Your task to perform on an android device: Clear the shopping cart on walmart.com. Add acer nitro to the cart on walmart.com Image 0: 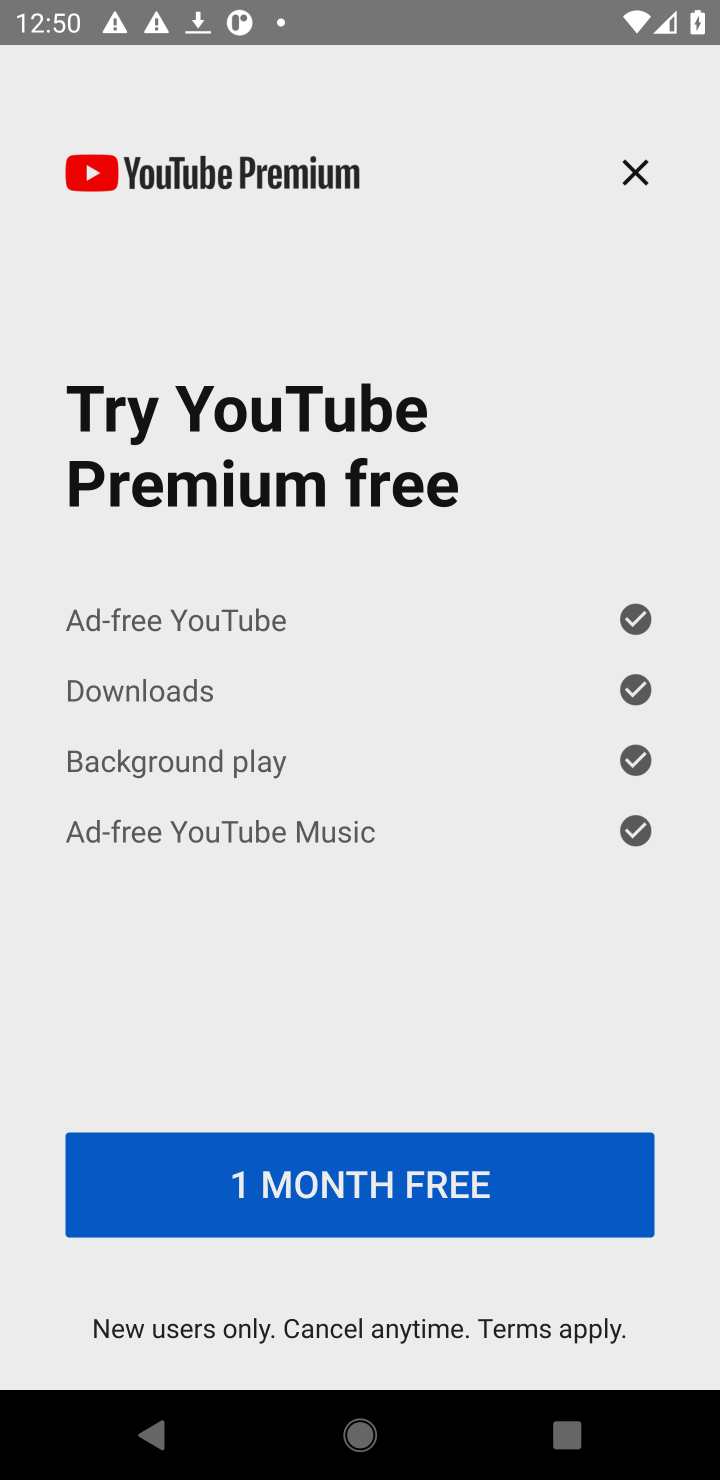
Step 0: press home button
Your task to perform on an android device: Clear the shopping cart on walmart.com. Add acer nitro to the cart on walmart.com Image 1: 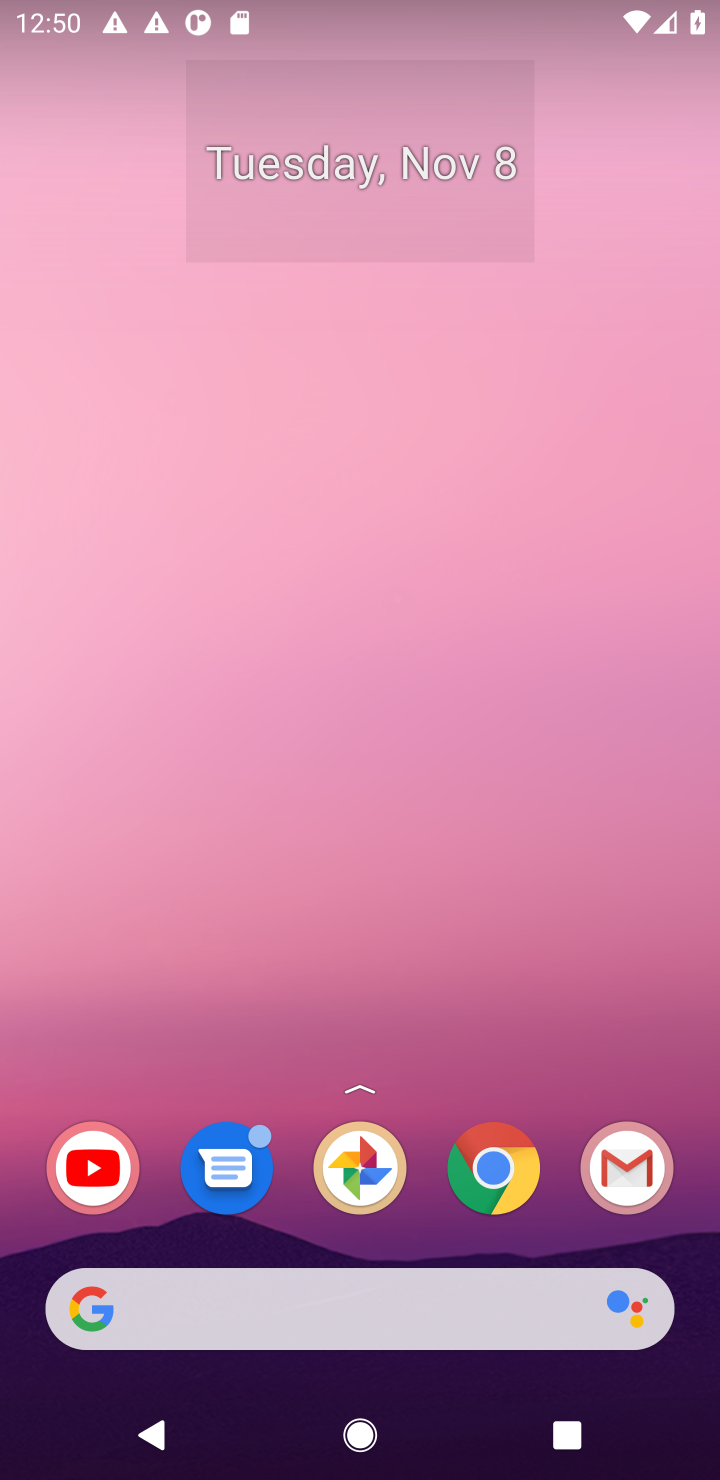
Step 1: click (384, 930)
Your task to perform on an android device: Clear the shopping cart on walmart.com. Add acer nitro to the cart on walmart.com Image 2: 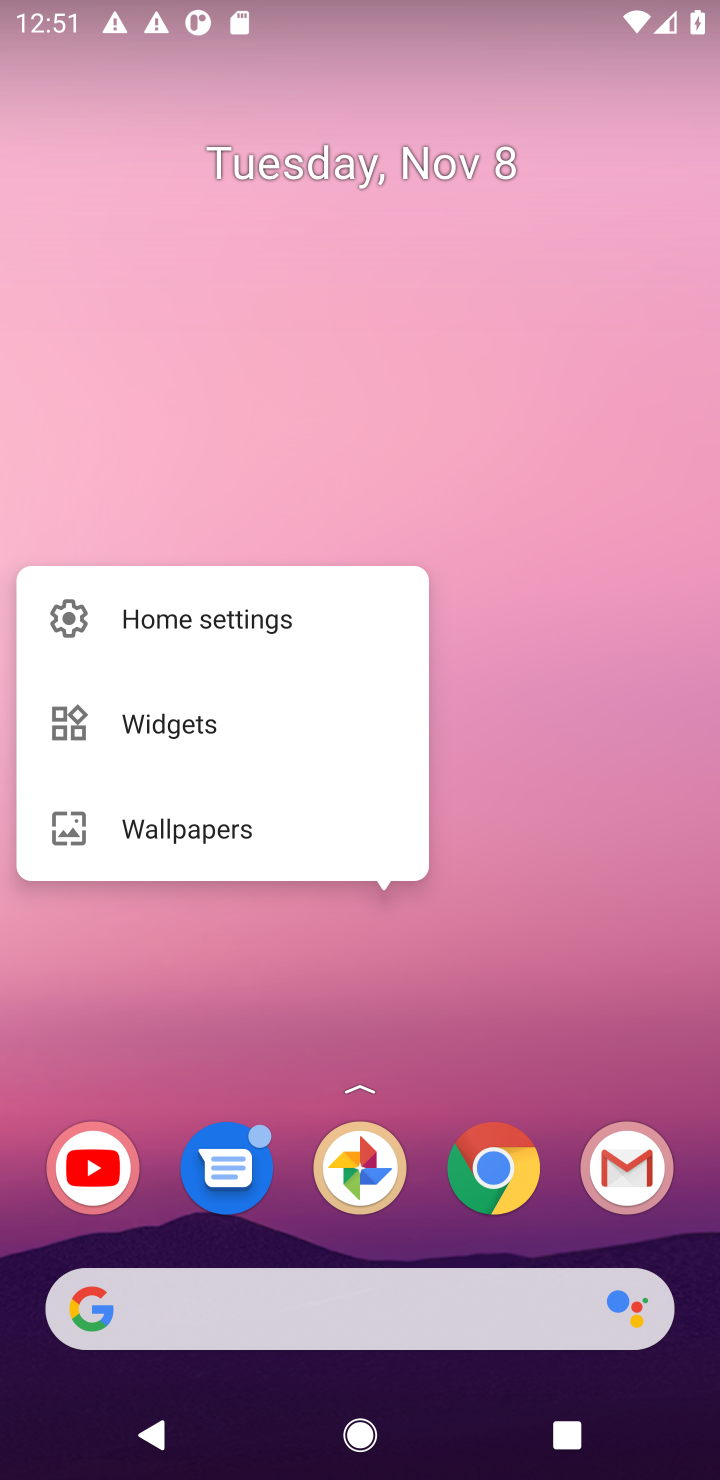
Step 2: click (524, 1019)
Your task to perform on an android device: Clear the shopping cart on walmart.com. Add acer nitro to the cart on walmart.com Image 3: 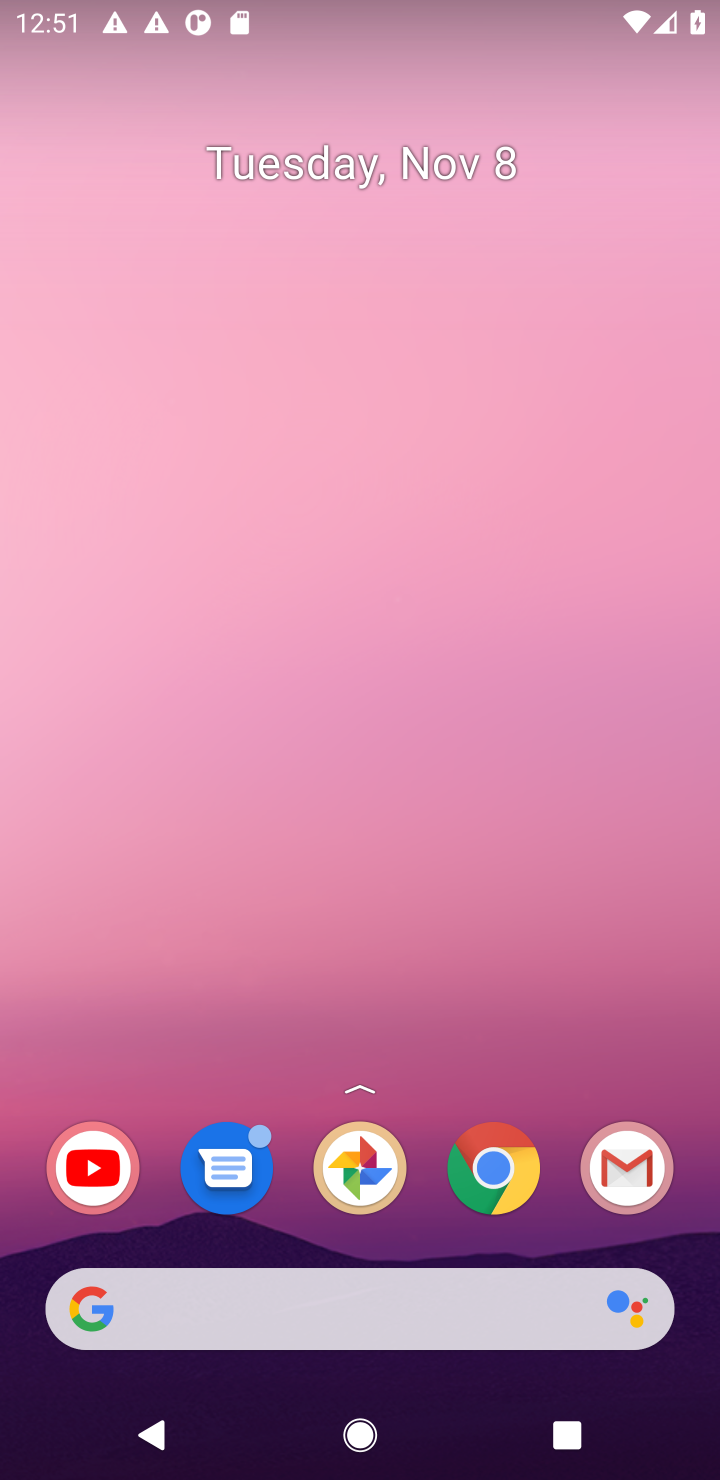
Step 3: click (503, 1182)
Your task to perform on an android device: Clear the shopping cart on walmart.com. Add acer nitro to the cart on walmart.com Image 4: 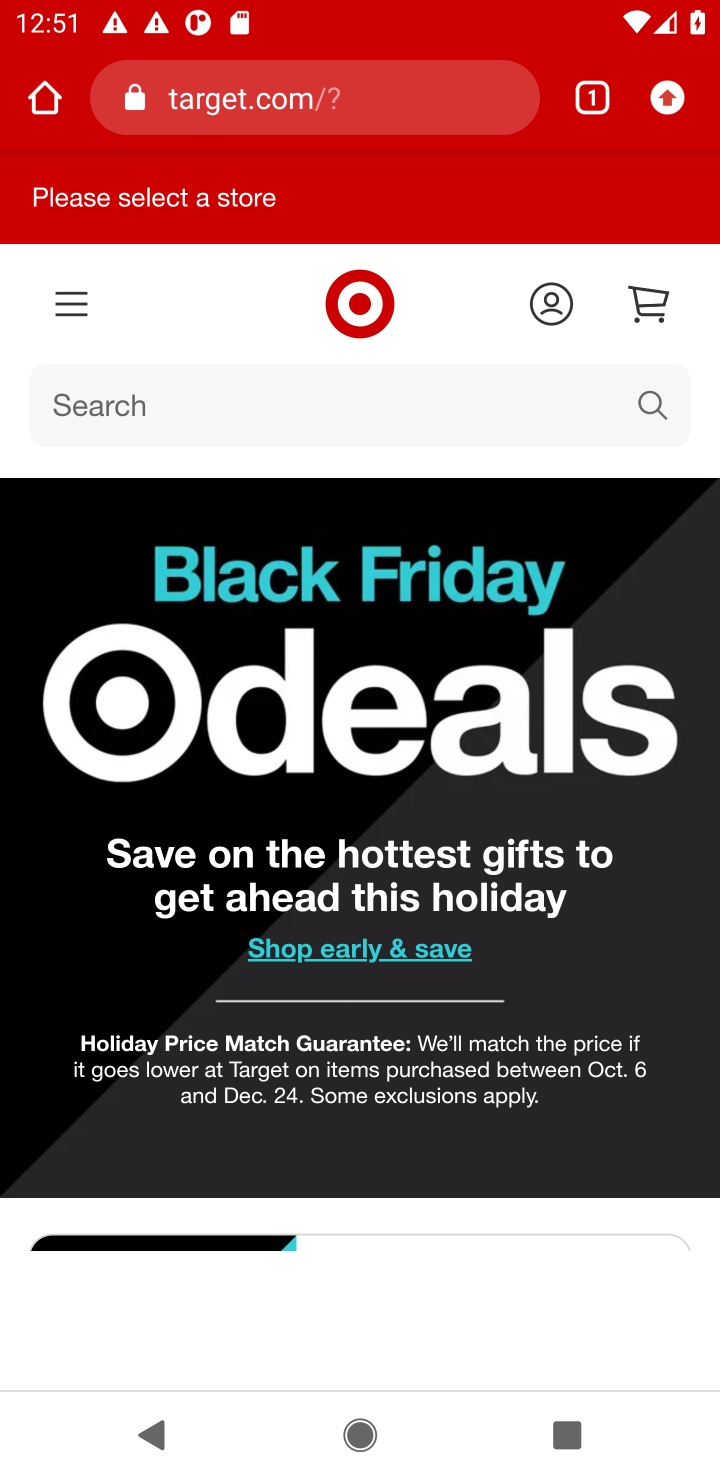
Step 4: click (347, 96)
Your task to perform on an android device: Clear the shopping cart on walmart.com. Add acer nitro to the cart on walmart.com Image 5: 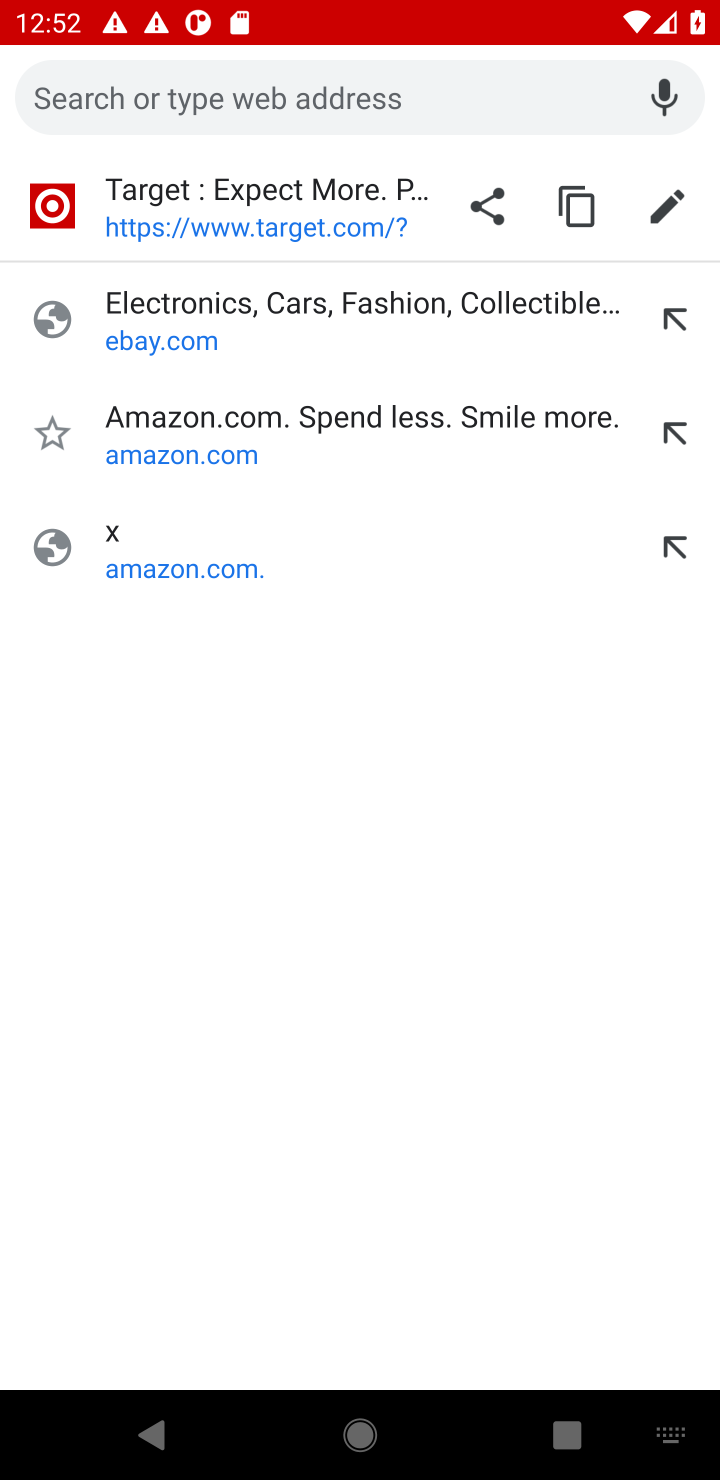
Step 5: press enter
Your task to perform on an android device: Clear the shopping cart on walmart.com. Add acer nitro to the cart on walmart.com Image 6: 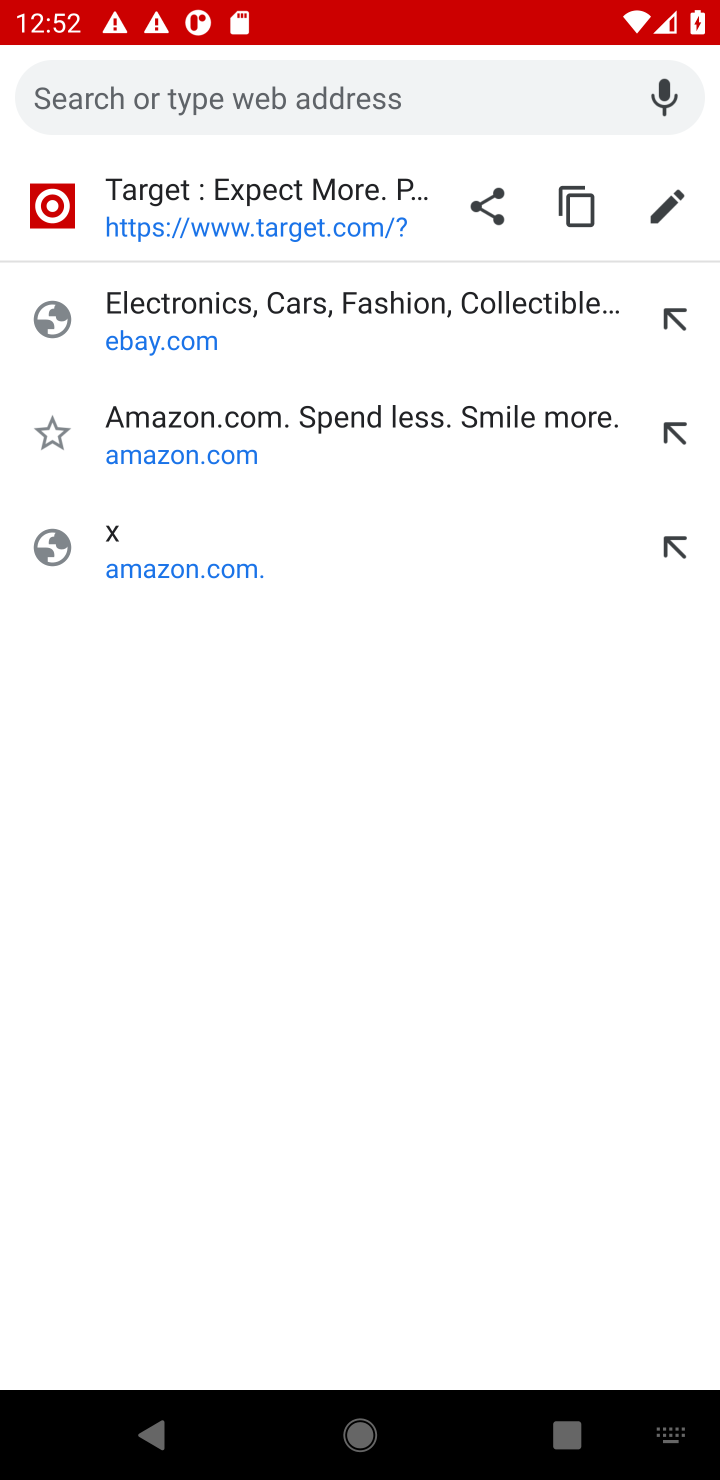
Step 6: type "walmart.com."
Your task to perform on an android device: Clear the shopping cart on walmart.com. Add acer nitro to the cart on walmart.com Image 7: 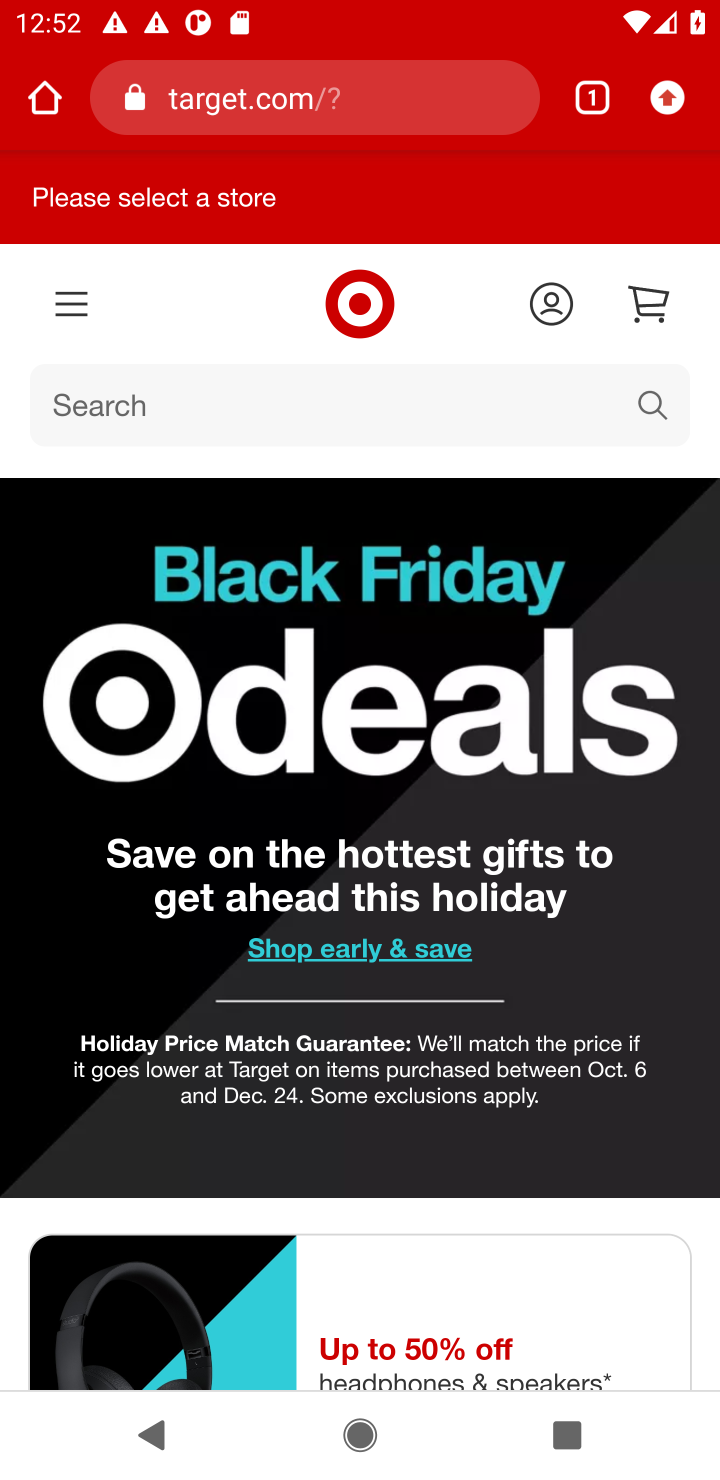
Step 7: click (317, 108)
Your task to perform on an android device: Clear the shopping cart on walmart.com. Add acer nitro to the cart on walmart.com Image 8: 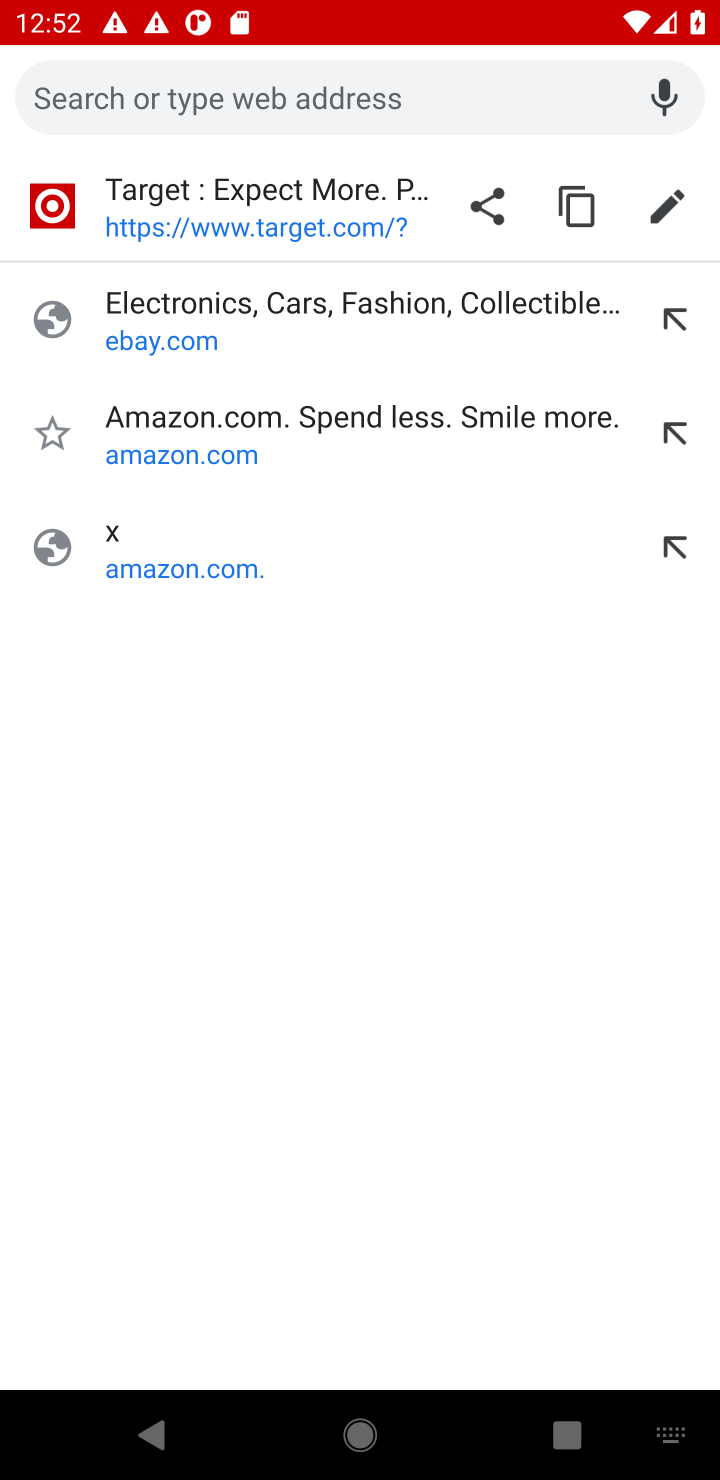
Step 8: type "walmart.com"
Your task to perform on an android device: Clear the shopping cart on walmart.com. Add acer nitro to the cart on walmart.com Image 9: 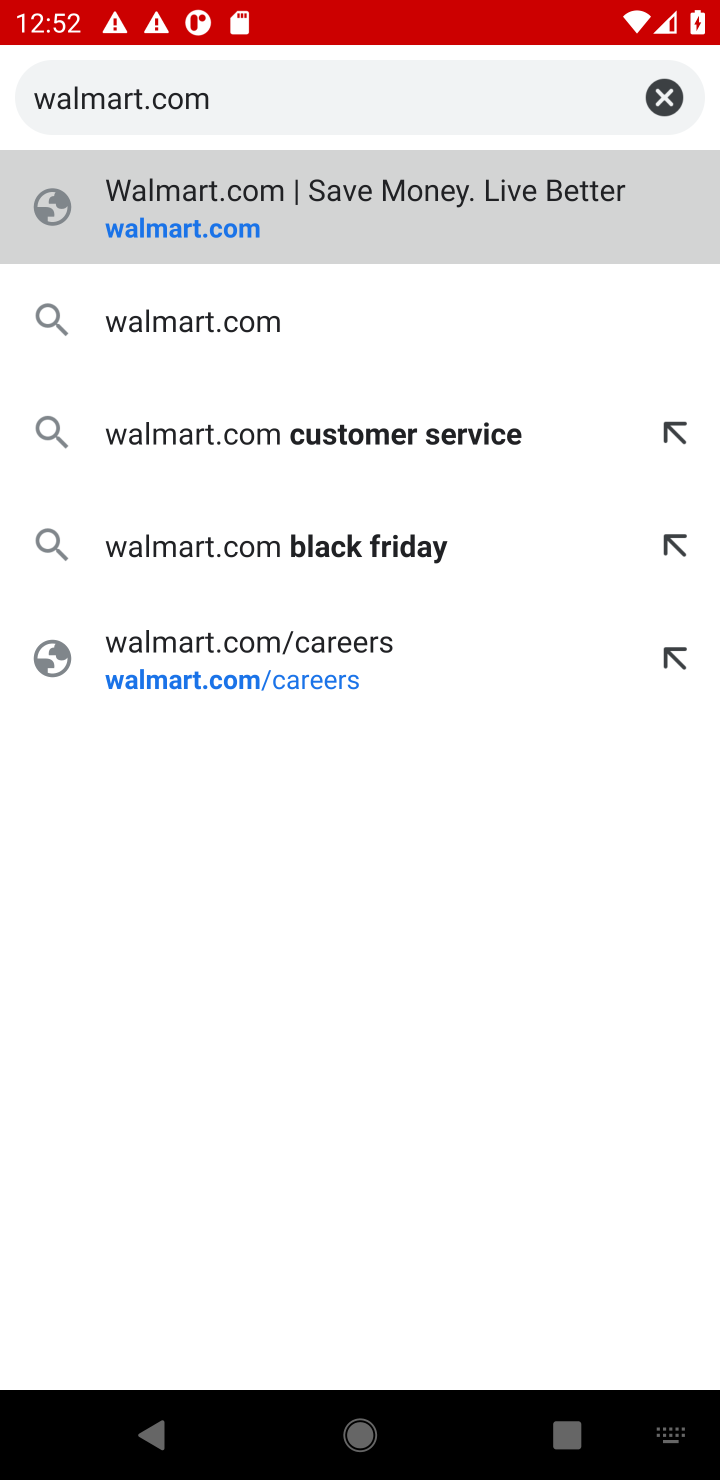
Step 9: press enter
Your task to perform on an android device: Clear the shopping cart on walmart.com. Add acer nitro to the cart on walmart.com Image 10: 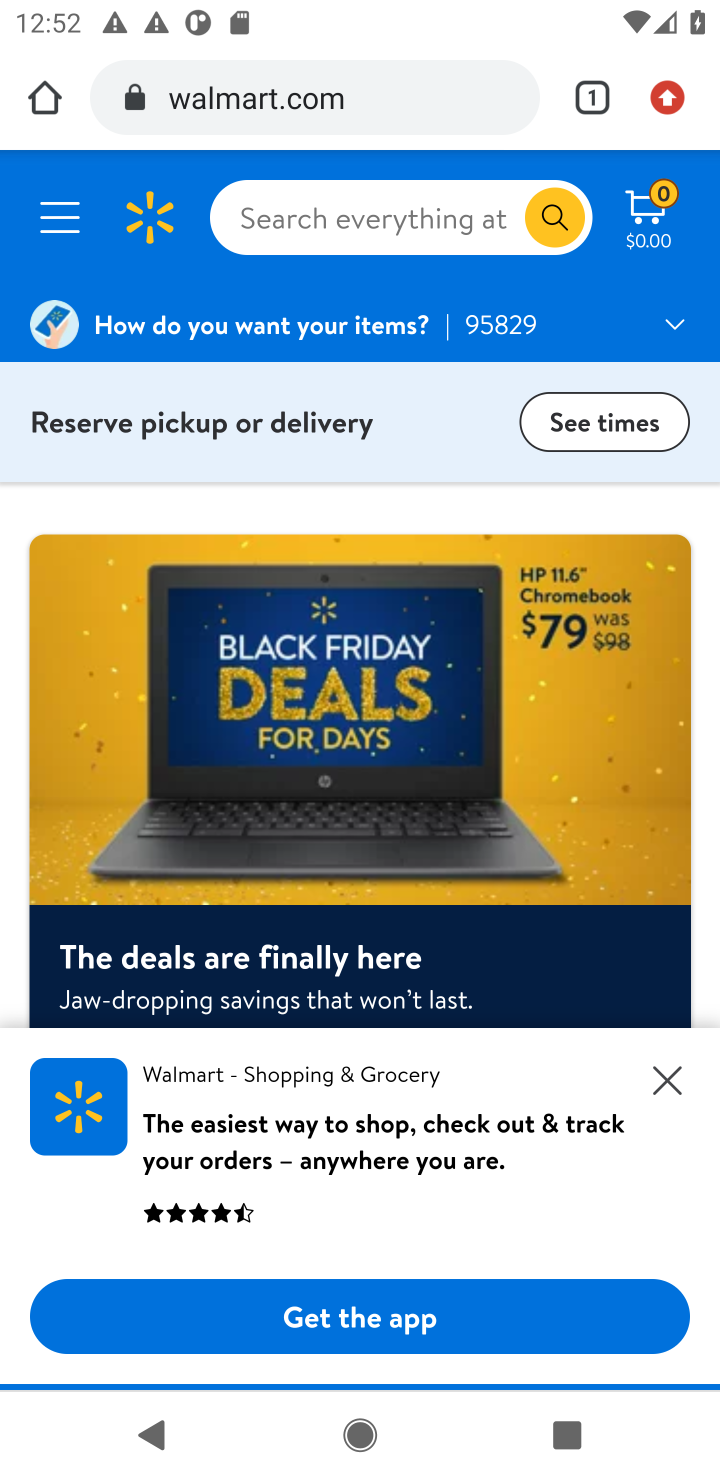
Step 10: click (357, 224)
Your task to perform on an android device: Clear the shopping cart on walmart.com. Add acer nitro to the cart on walmart.com Image 11: 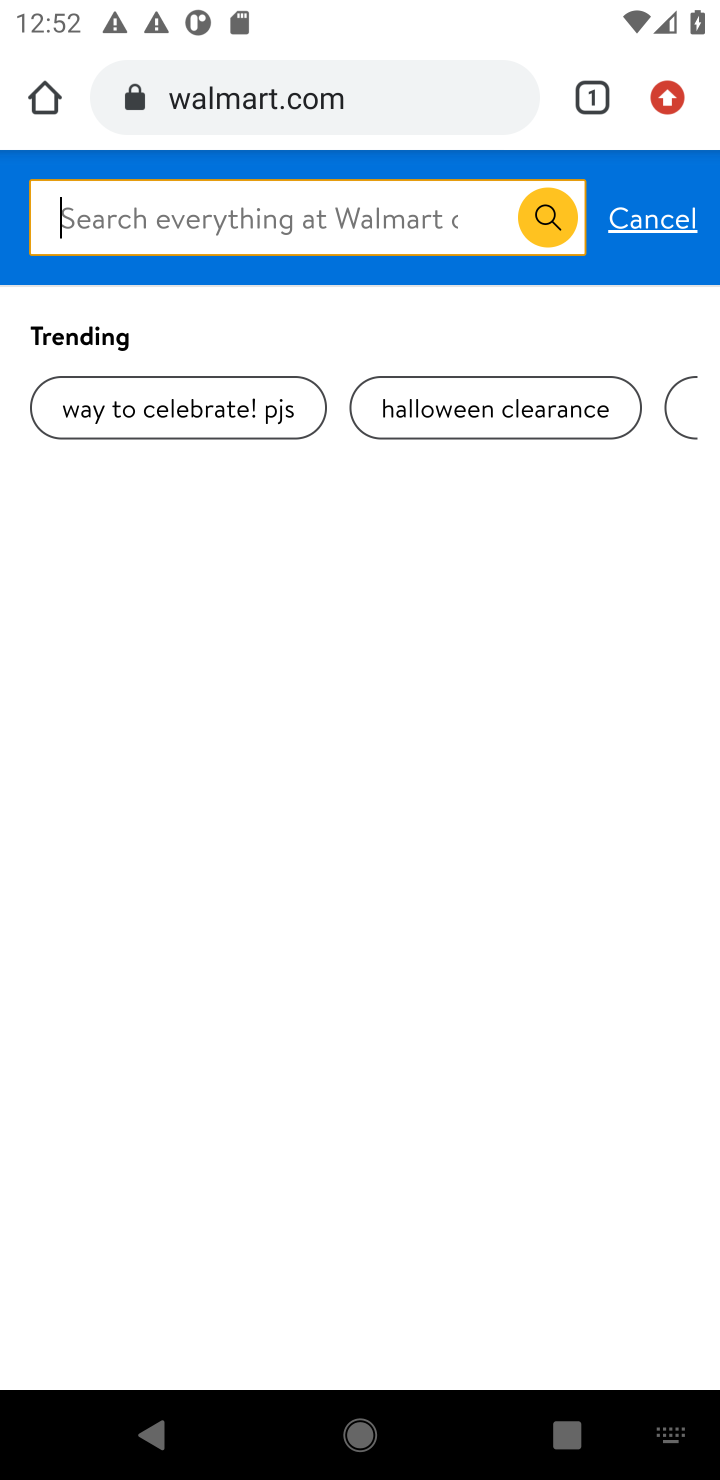
Step 11: type "acer nitro"
Your task to perform on an android device: Clear the shopping cart on walmart.com. Add acer nitro to the cart on walmart.com Image 12: 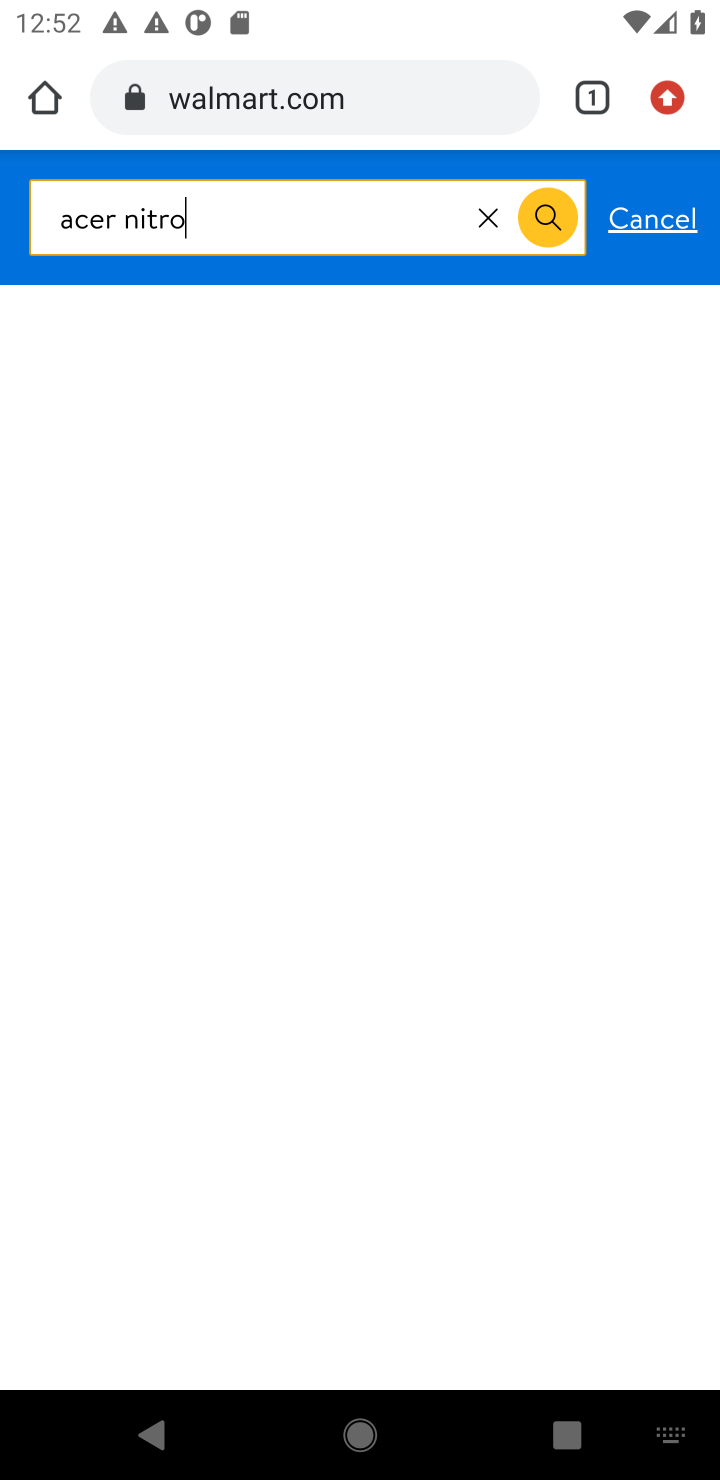
Step 12: press enter
Your task to perform on an android device: Clear the shopping cart on walmart.com. Add acer nitro to the cart on walmart.com Image 13: 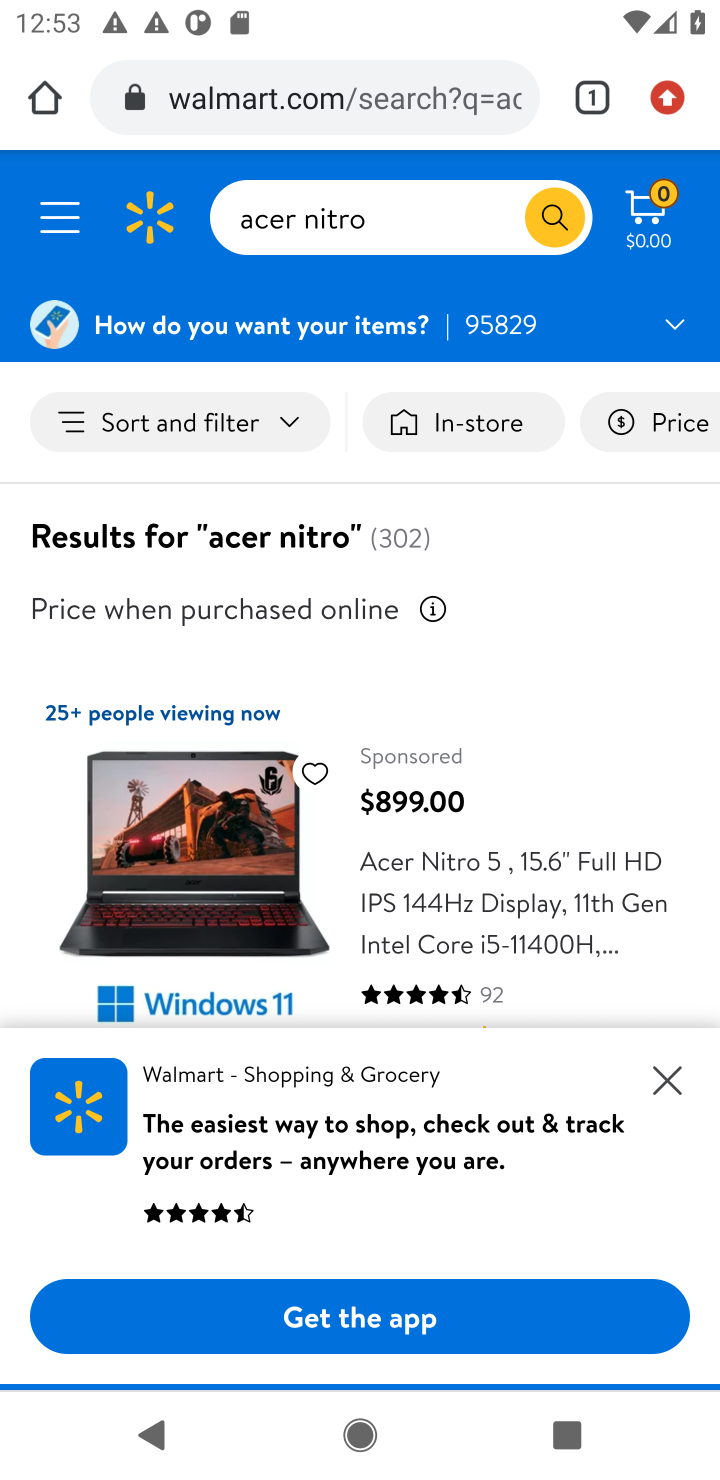
Step 13: click (666, 1068)
Your task to perform on an android device: Clear the shopping cart on walmart.com. Add acer nitro to the cart on walmart.com Image 14: 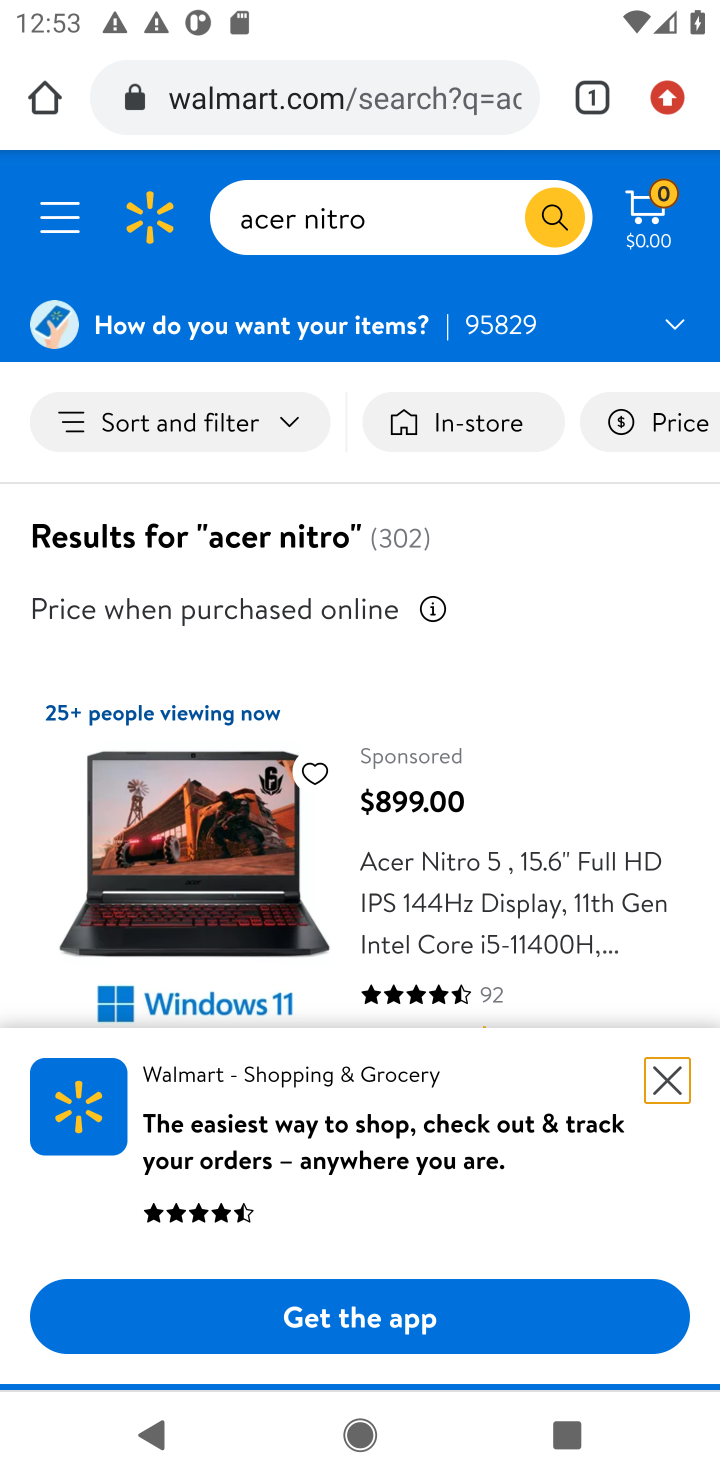
Step 14: click (675, 1084)
Your task to perform on an android device: Clear the shopping cart on walmart.com. Add acer nitro to the cart on walmart.com Image 15: 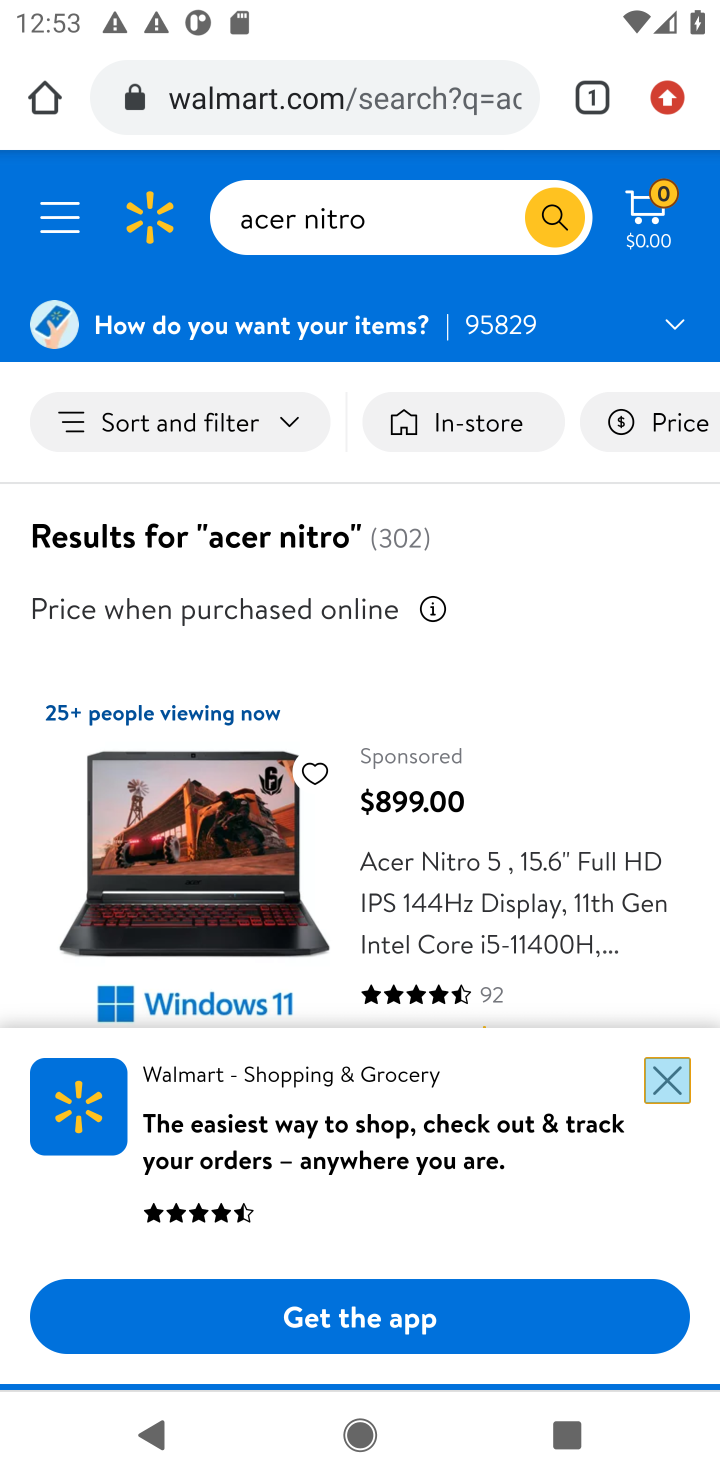
Step 15: click (675, 1083)
Your task to perform on an android device: Clear the shopping cart on walmart.com. Add acer nitro to the cart on walmart.com Image 16: 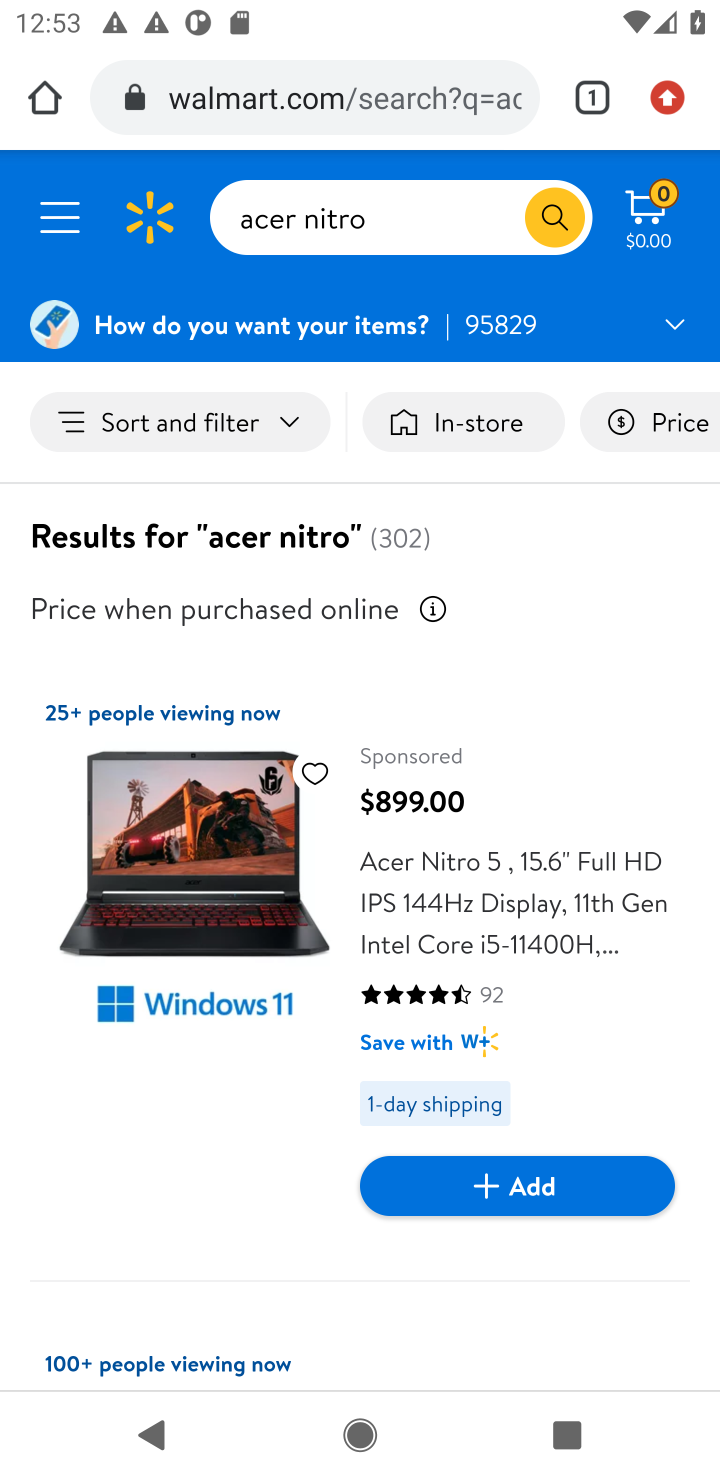
Step 16: click (460, 1186)
Your task to perform on an android device: Clear the shopping cart on walmart.com. Add acer nitro to the cart on walmart.com Image 17: 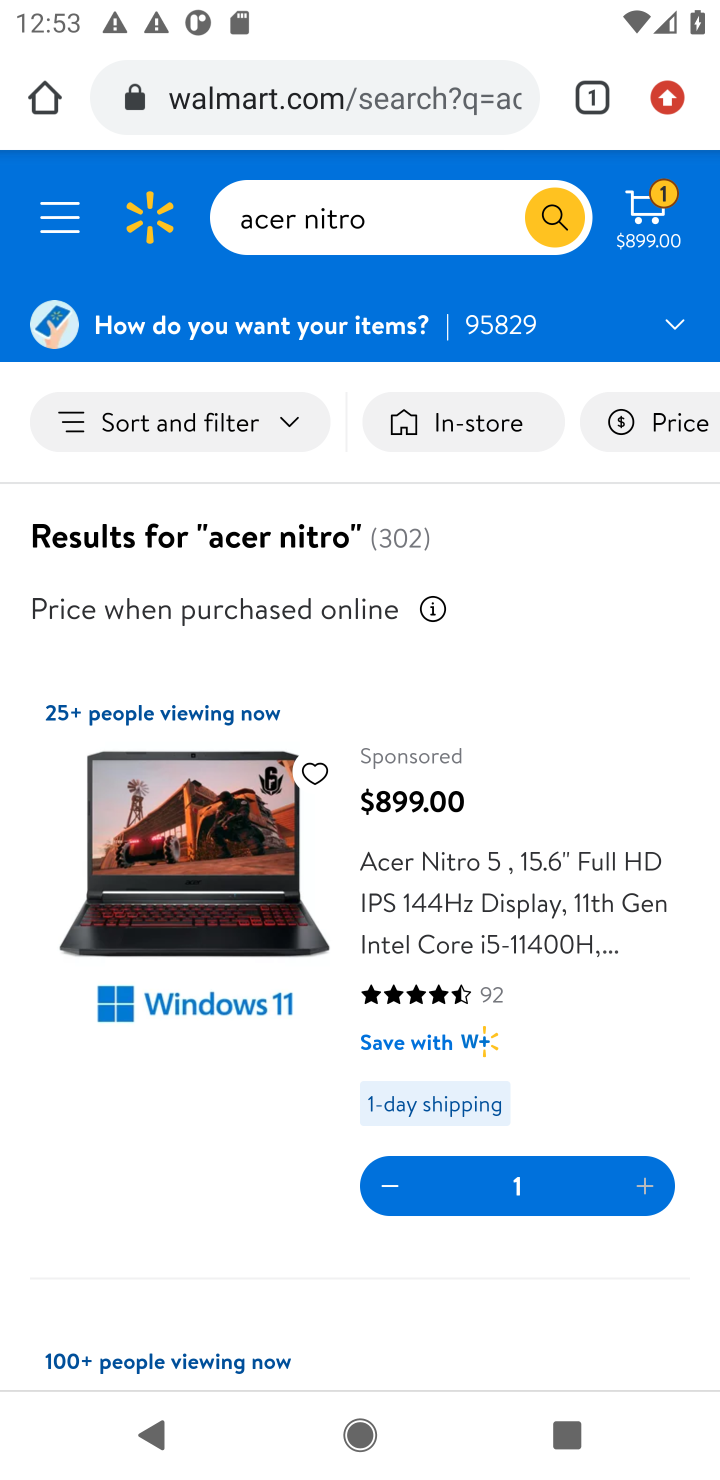
Step 17: task complete